Your task to perform on an android device: open the mobile data screen to see how much data has been used Image 0: 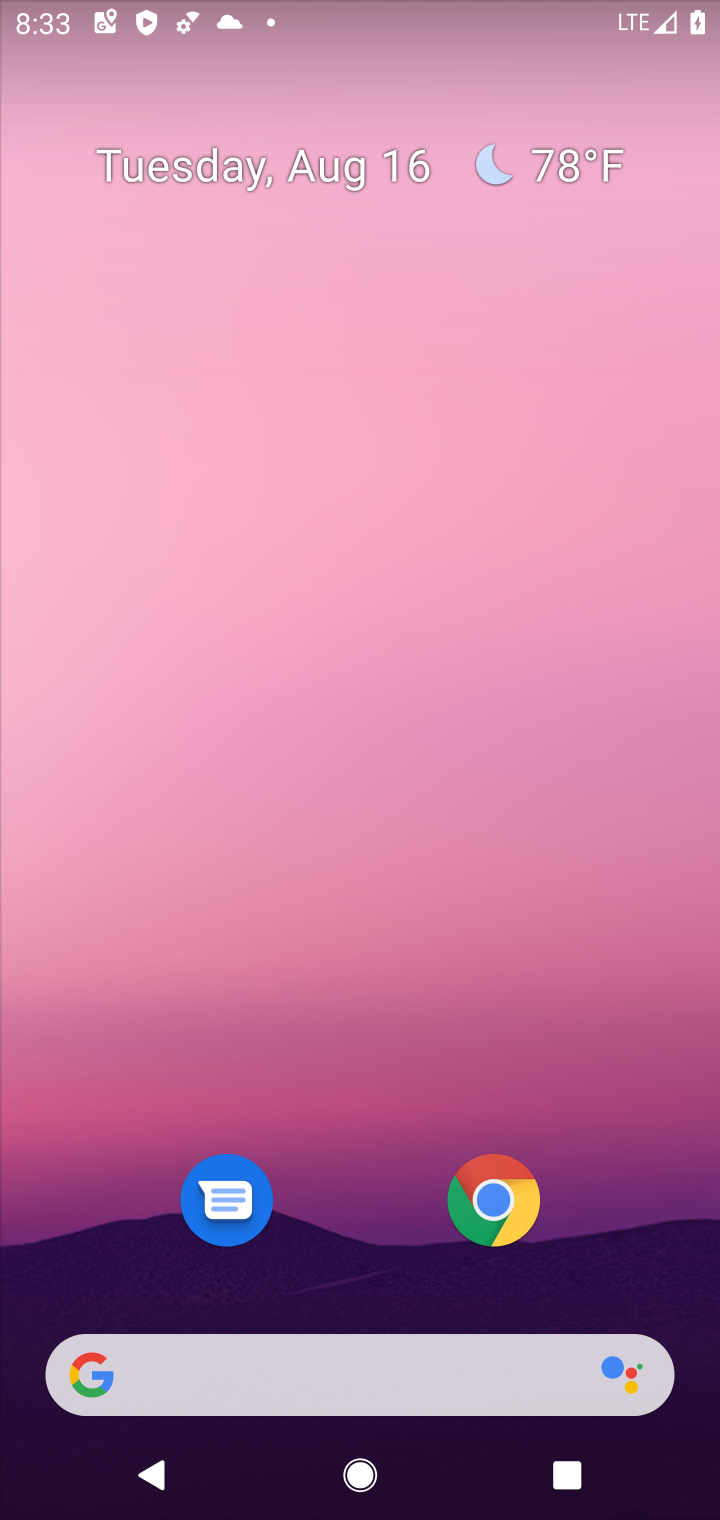
Step 0: drag from (647, 950) to (650, 230)
Your task to perform on an android device: open the mobile data screen to see how much data has been used Image 1: 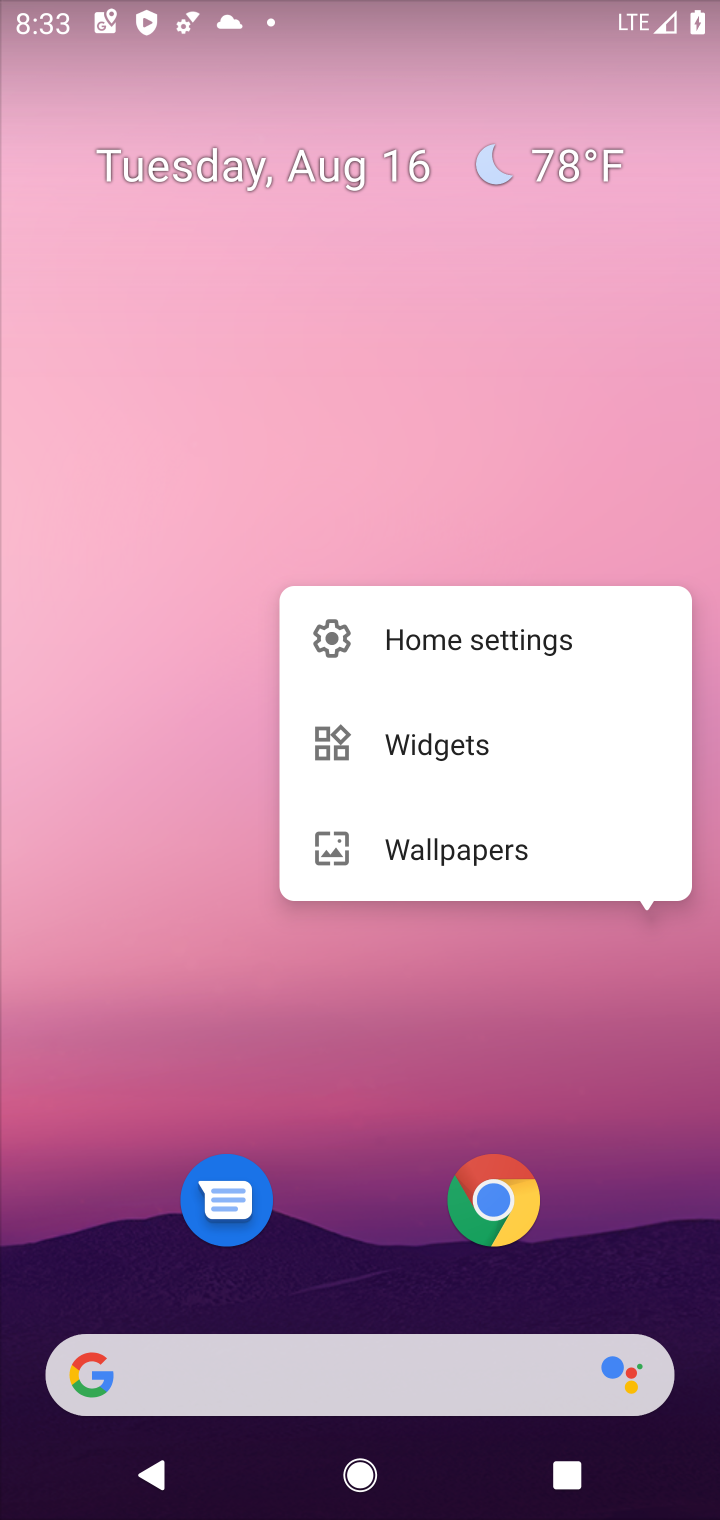
Step 1: click (664, 1278)
Your task to perform on an android device: open the mobile data screen to see how much data has been used Image 2: 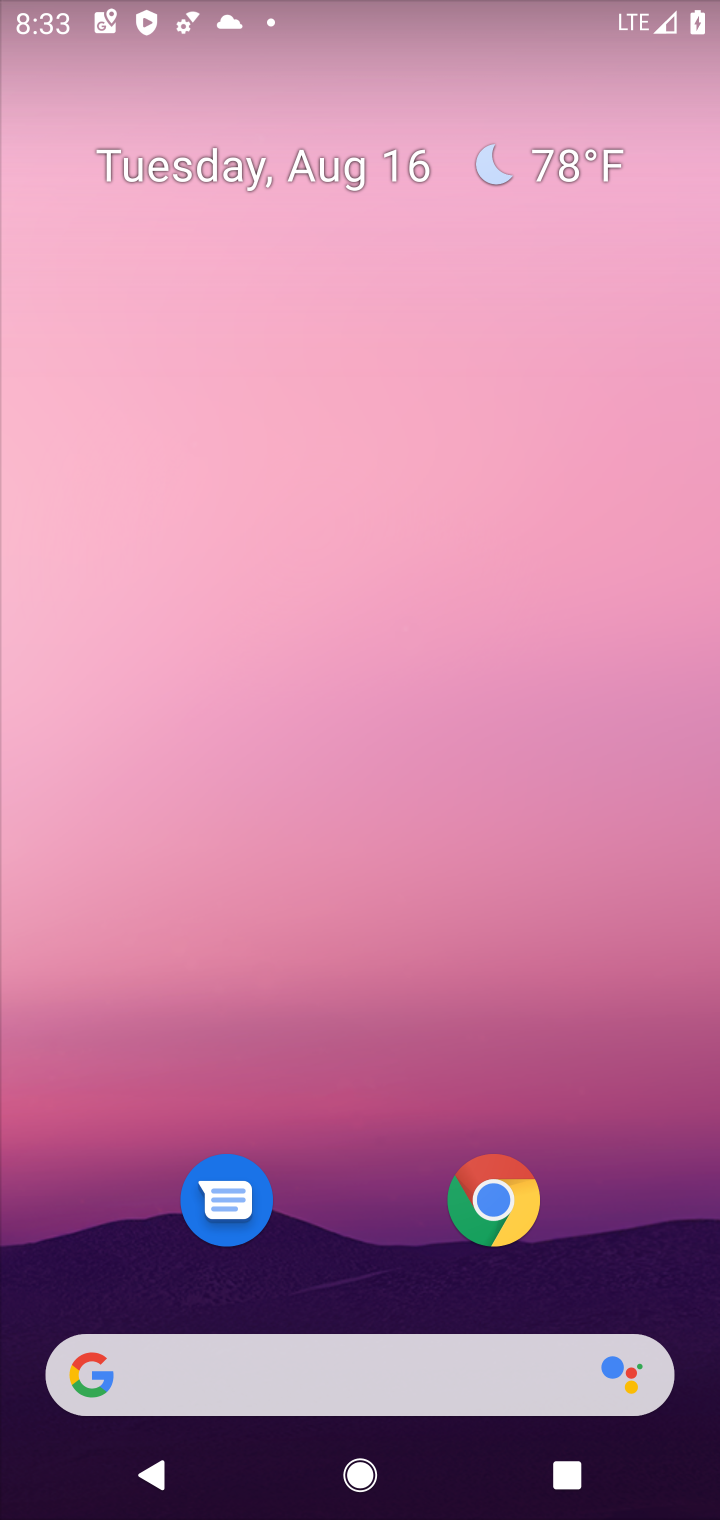
Step 2: drag from (644, 1183) to (552, 262)
Your task to perform on an android device: open the mobile data screen to see how much data has been used Image 3: 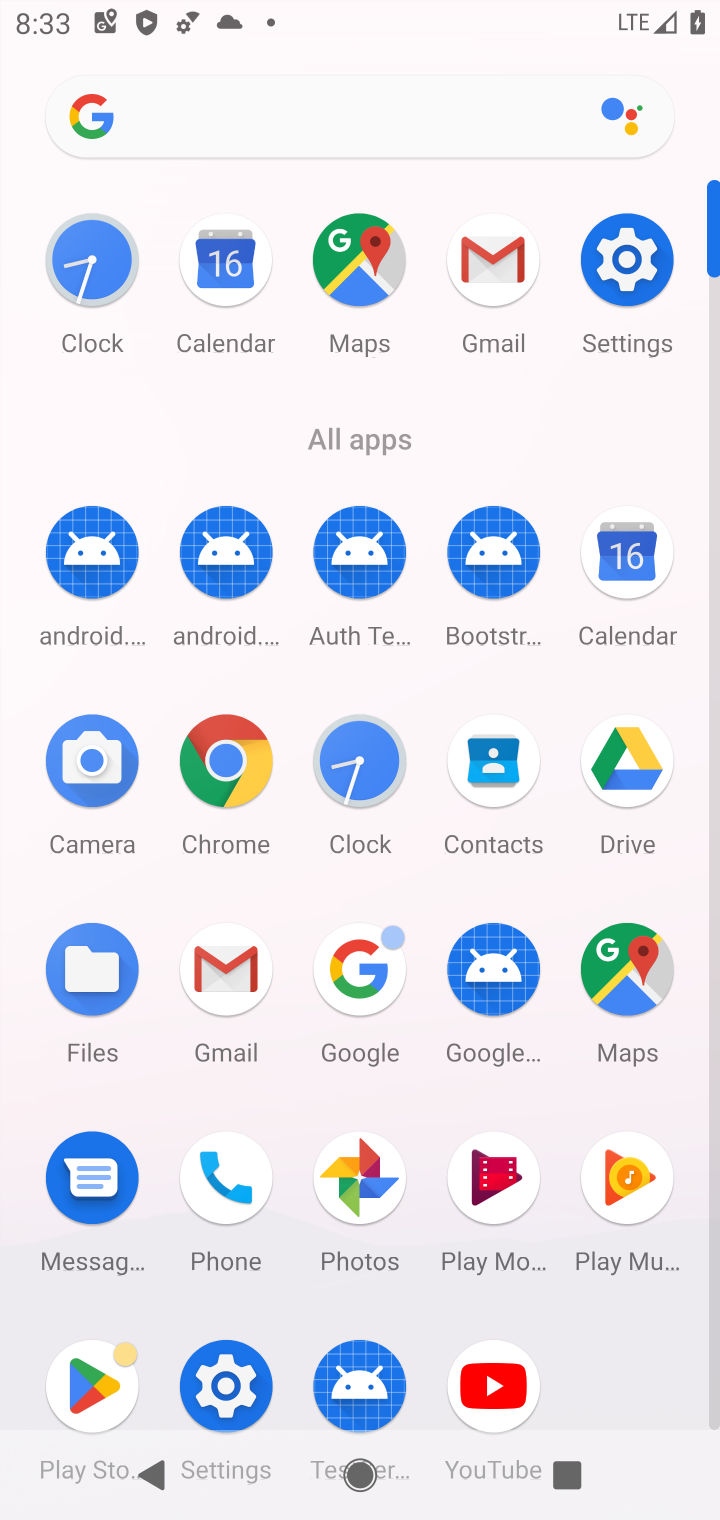
Step 3: click (713, 1399)
Your task to perform on an android device: open the mobile data screen to see how much data has been used Image 4: 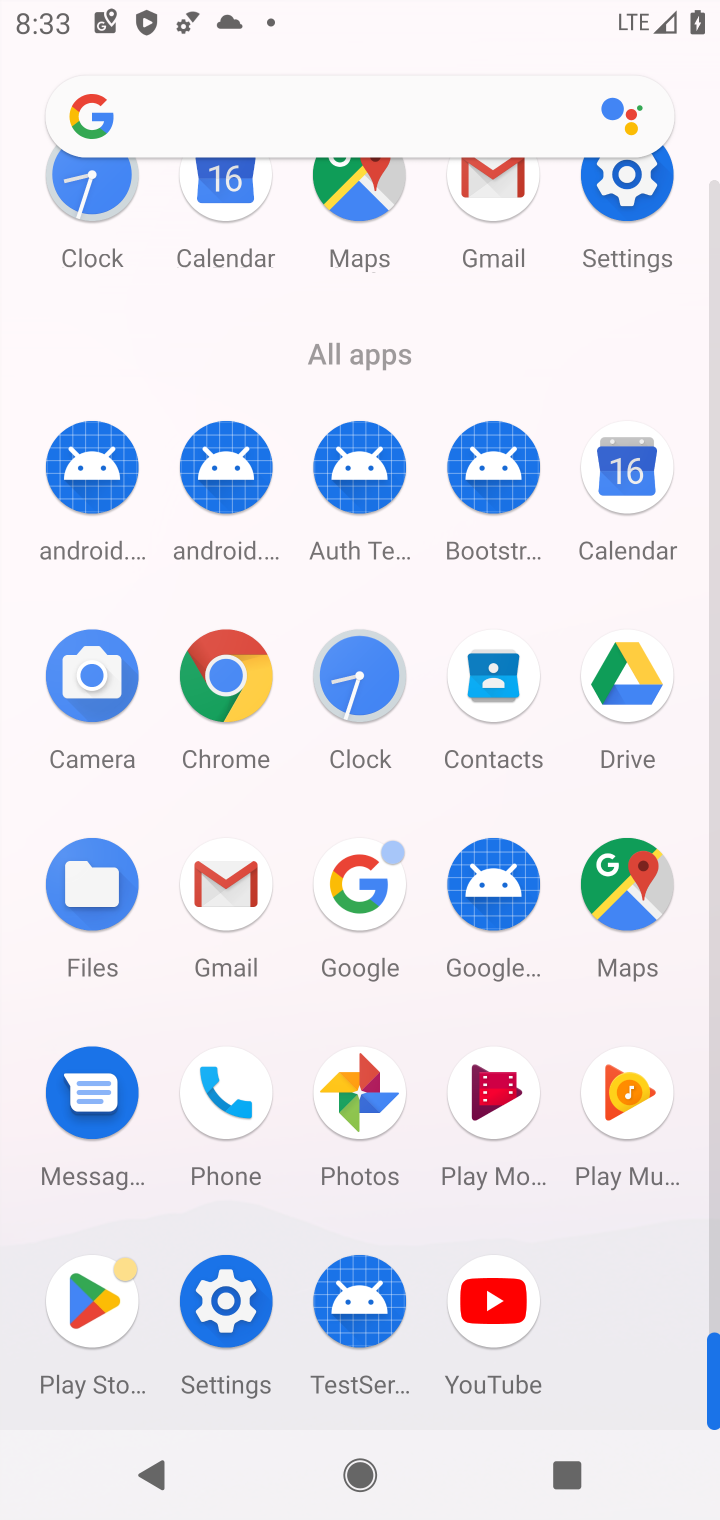
Step 4: click (222, 1306)
Your task to perform on an android device: open the mobile data screen to see how much data has been used Image 5: 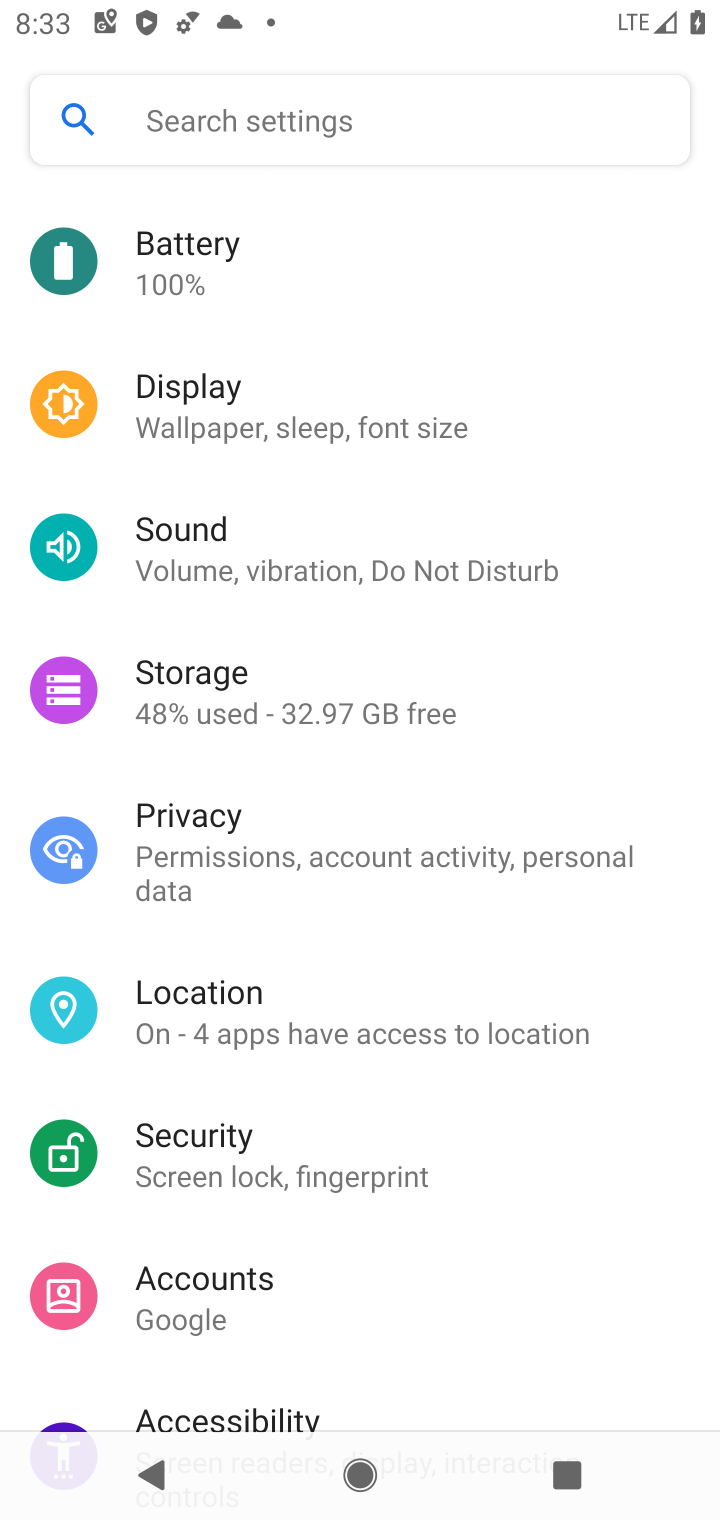
Step 5: drag from (595, 416) to (595, 1021)
Your task to perform on an android device: open the mobile data screen to see how much data has been used Image 6: 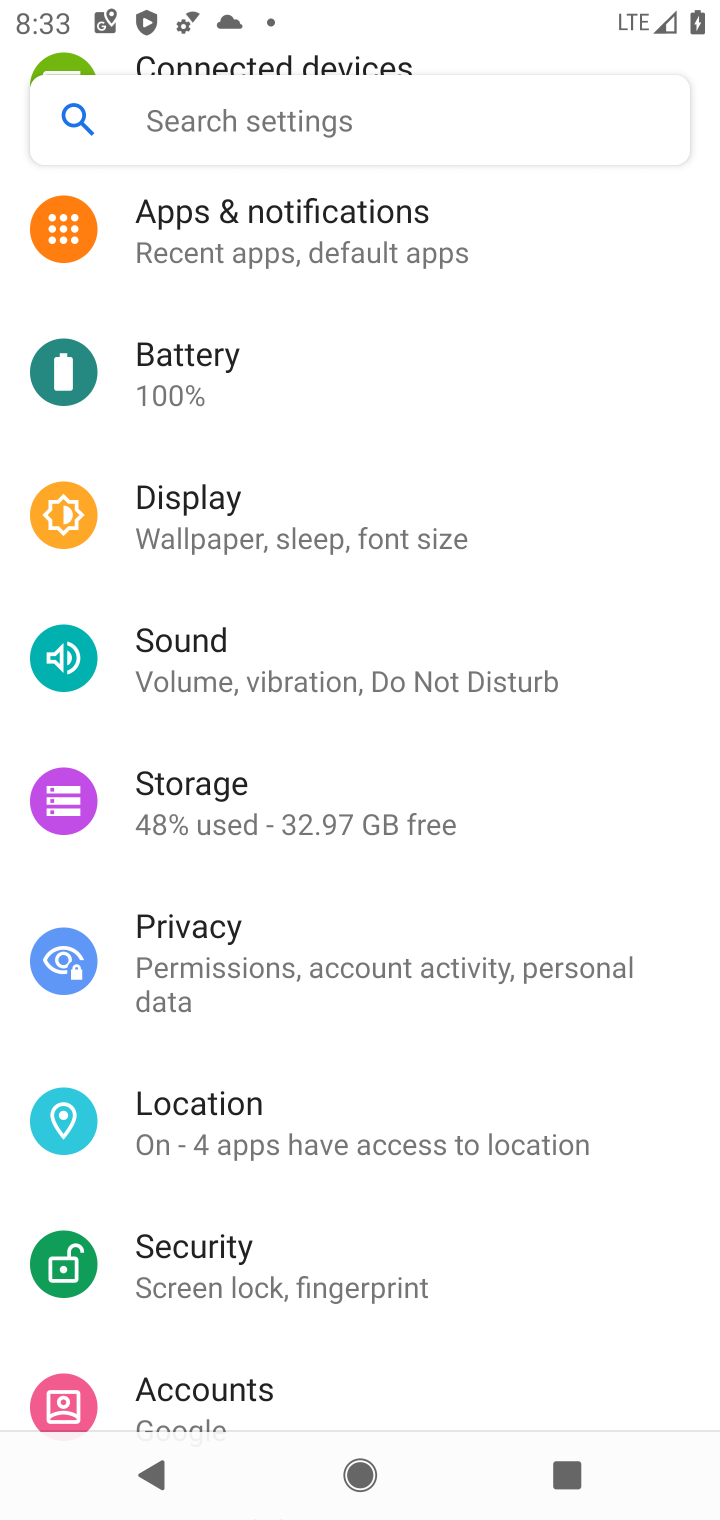
Step 6: drag from (551, 393) to (545, 1115)
Your task to perform on an android device: open the mobile data screen to see how much data has been used Image 7: 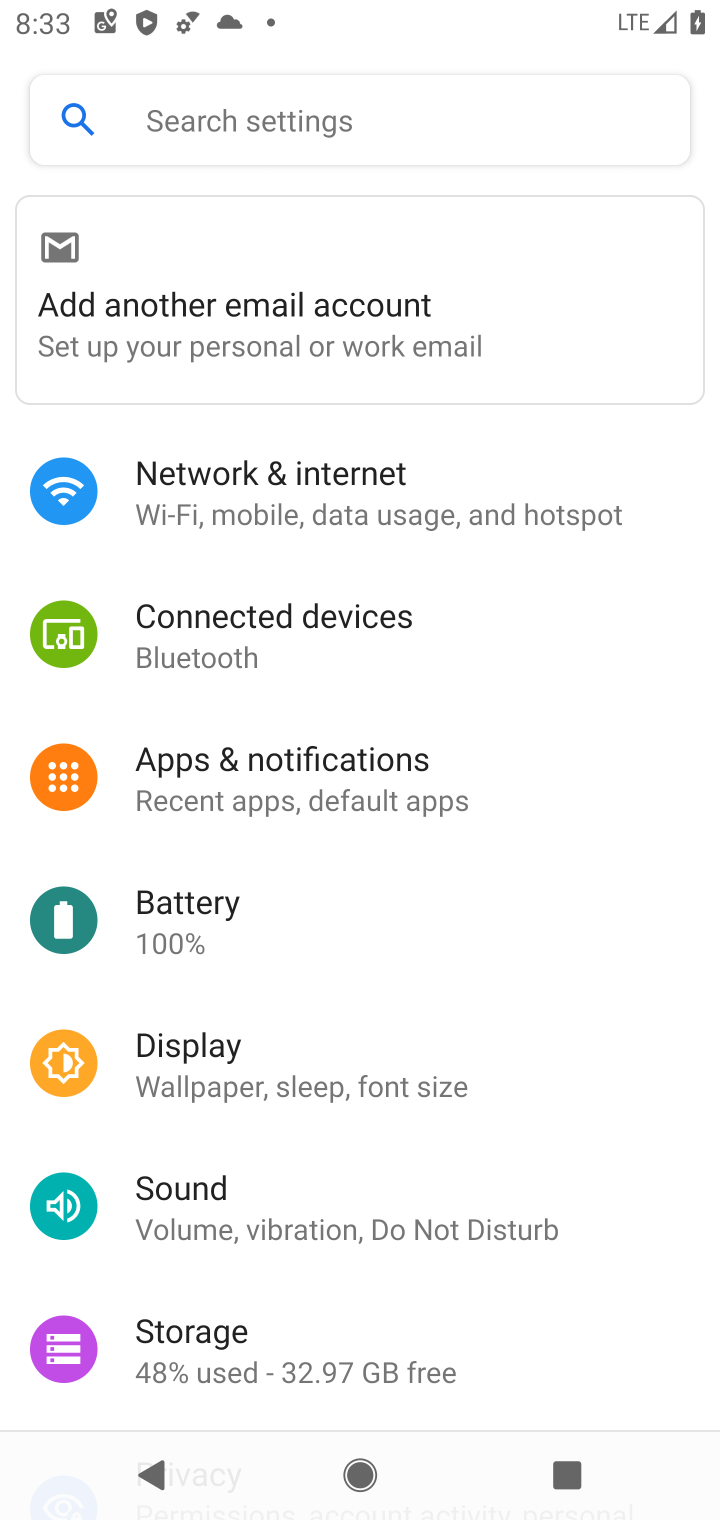
Step 7: click (222, 481)
Your task to perform on an android device: open the mobile data screen to see how much data has been used Image 8: 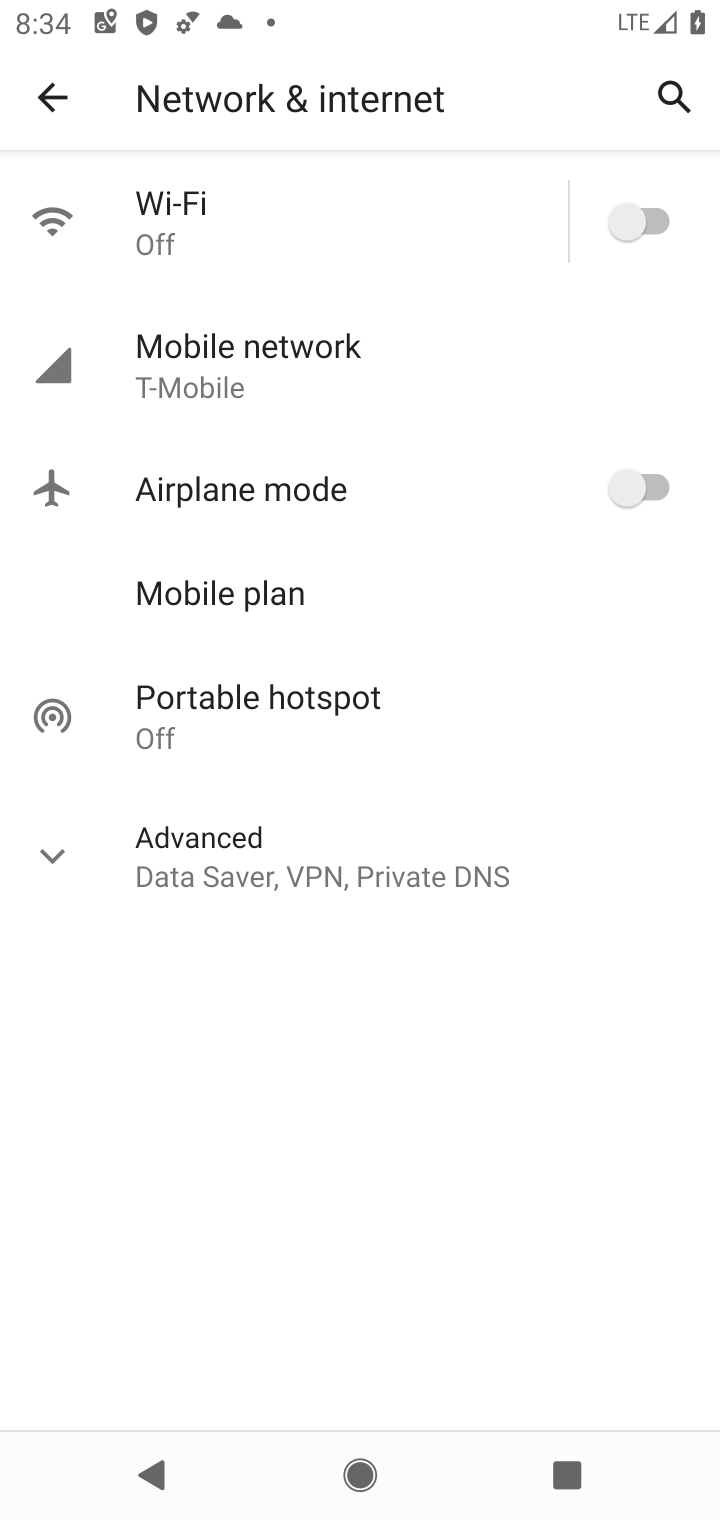
Step 8: click (219, 380)
Your task to perform on an android device: open the mobile data screen to see how much data has been used Image 9: 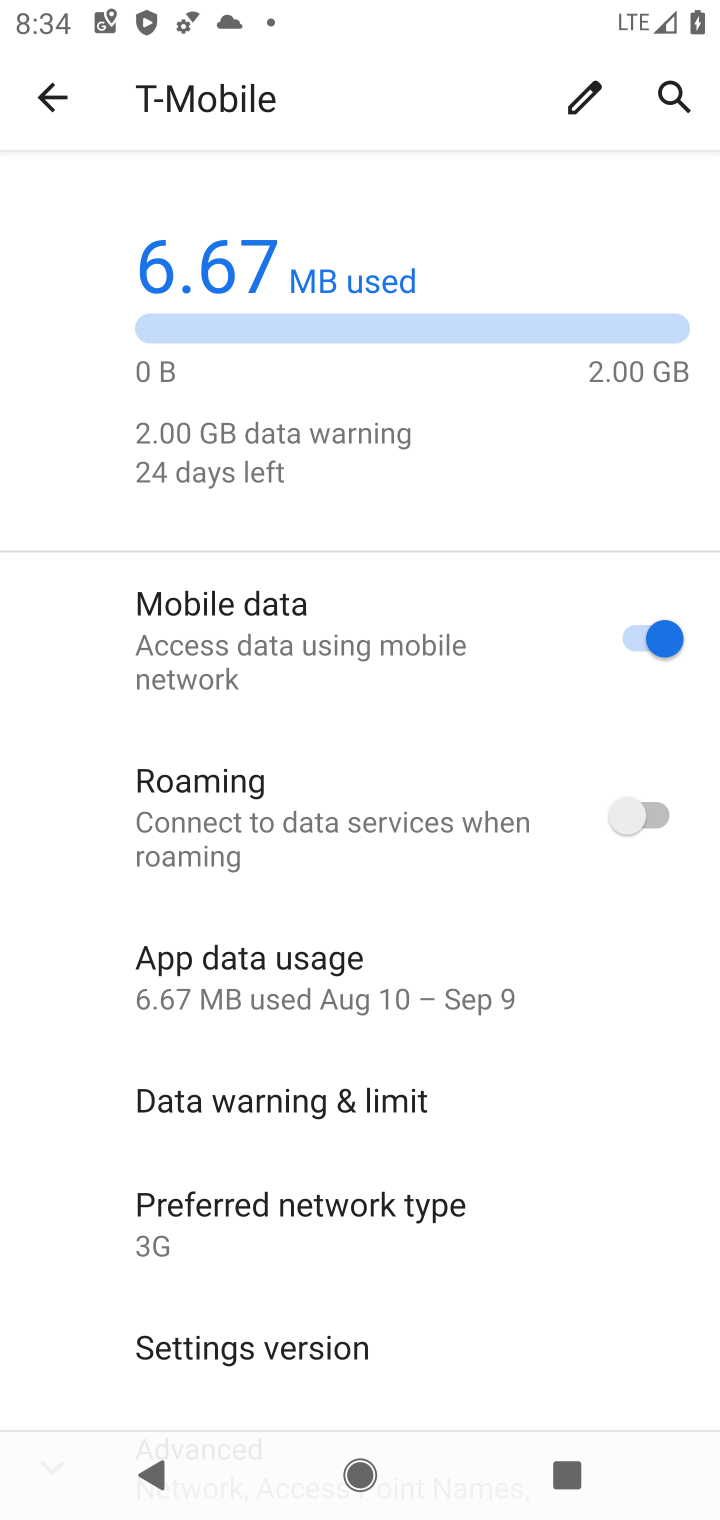
Step 9: task complete